Your task to perform on an android device: Open the stopwatch Image 0: 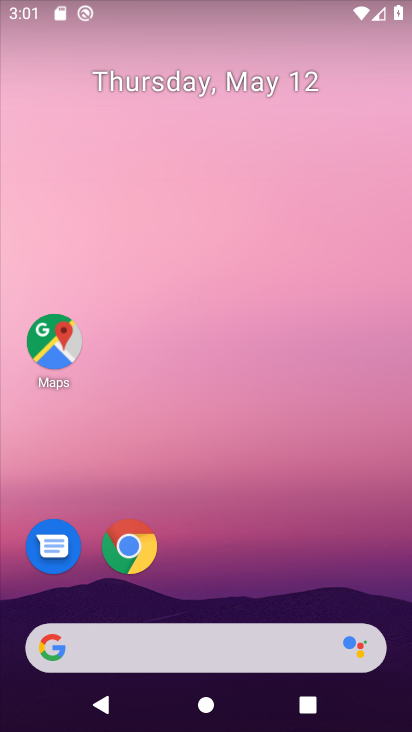
Step 0: drag from (265, 501) to (265, 292)
Your task to perform on an android device: Open the stopwatch Image 1: 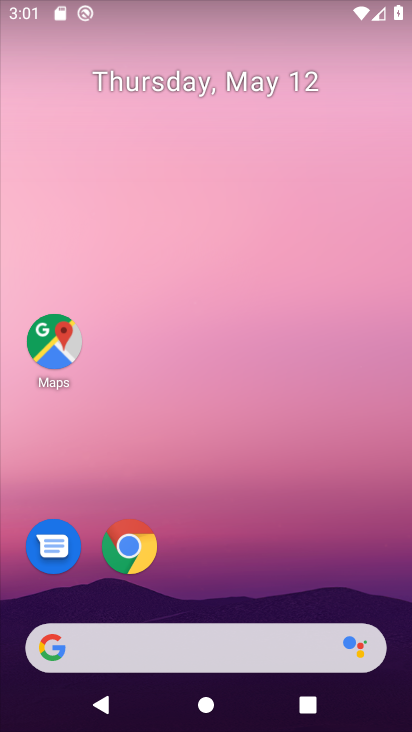
Step 1: drag from (214, 604) to (278, 232)
Your task to perform on an android device: Open the stopwatch Image 2: 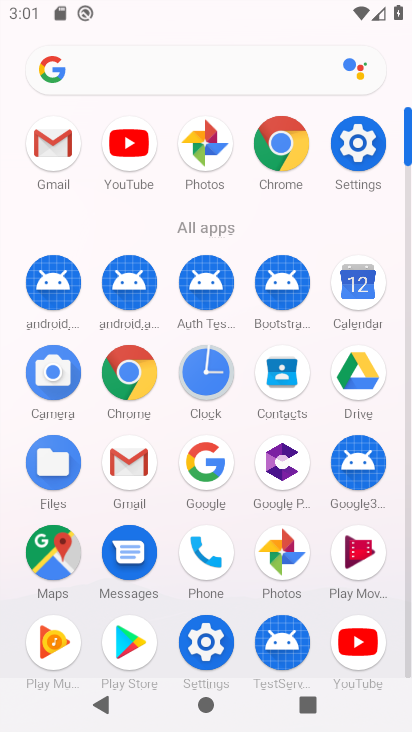
Step 2: click (195, 376)
Your task to perform on an android device: Open the stopwatch Image 3: 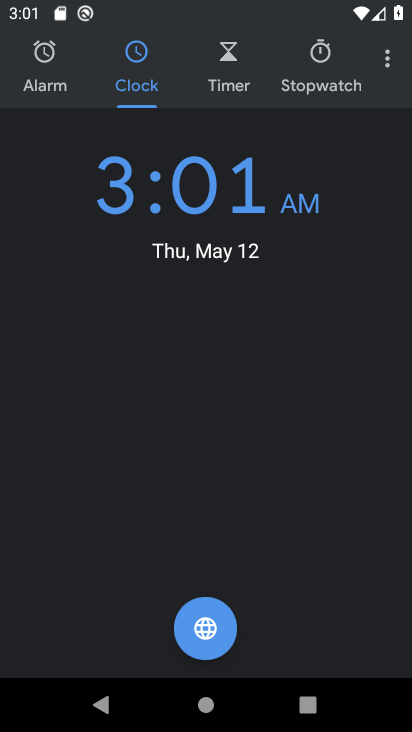
Step 3: click (309, 69)
Your task to perform on an android device: Open the stopwatch Image 4: 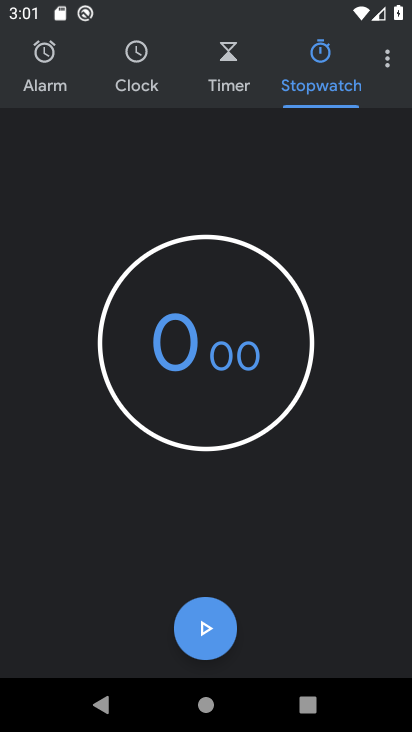
Step 4: click (207, 614)
Your task to perform on an android device: Open the stopwatch Image 5: 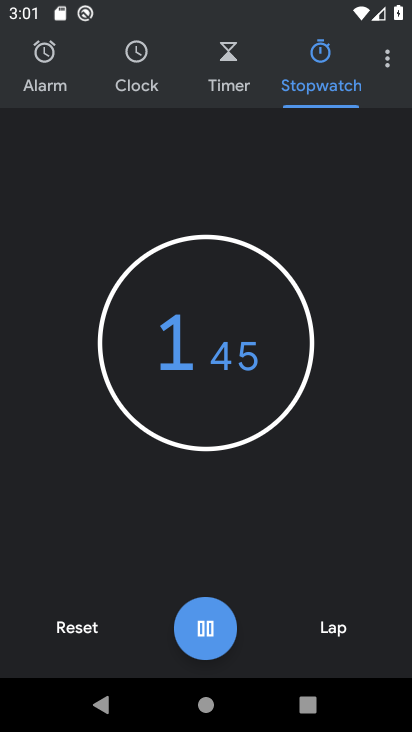
Step 5: click (207, 614)
Your task to perform on an android device: Open the stopwatch Image 6: 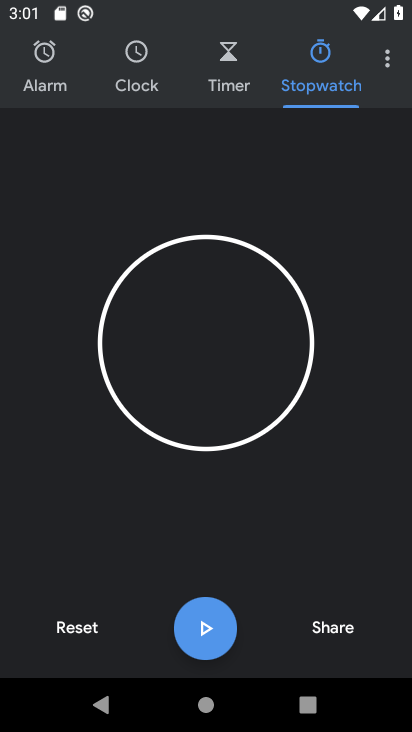
Step 6: click (86, 633)
Your task to perform on an android device: Open the stopwatch Image 7: 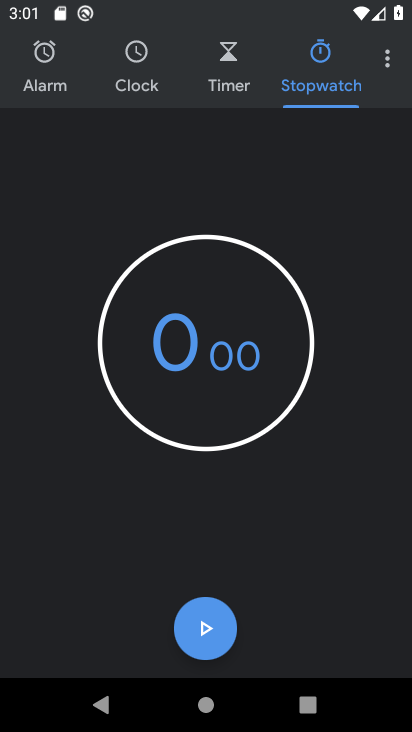
Step 7: task complete